Your task to perform on an android device: Open Wikipedia Image 0: 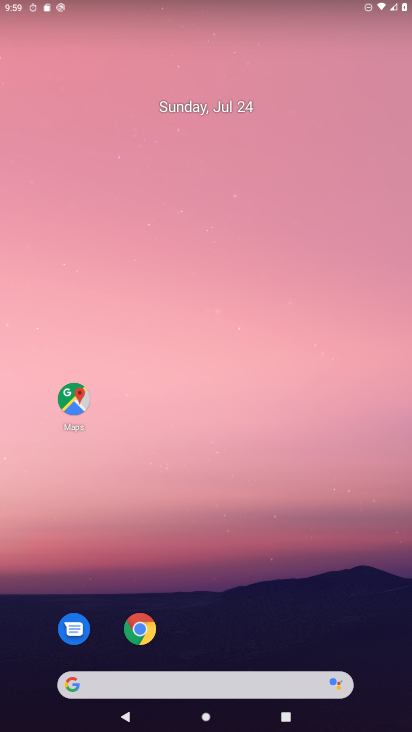
Step 0: drag from (237, 676) to (207, 113)
Your task to perform on an android device: Open Wikipedia Image 1: 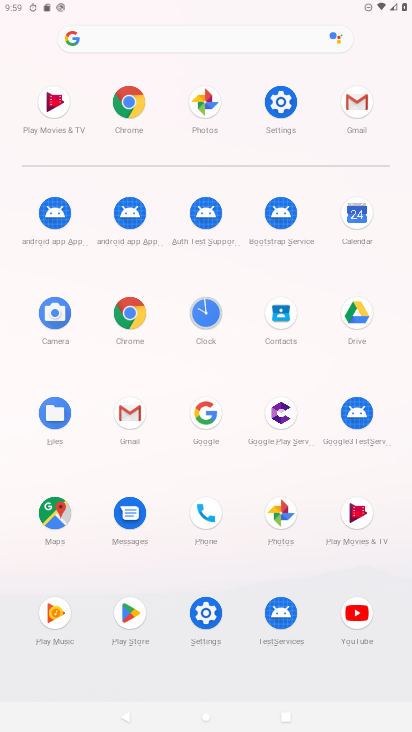
Step 1: click (124, 140)
Your task to perform on an android device: Open Wikipedia Image 2: 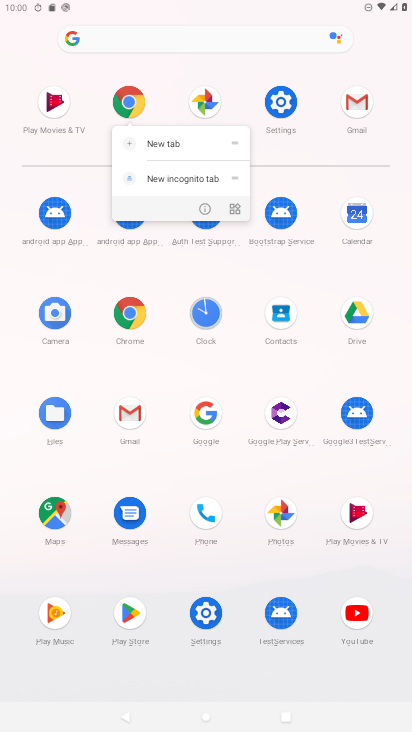
Step 2: click (139, 336)
Your task to perform on an android device: Open Wikipedia Image 3: 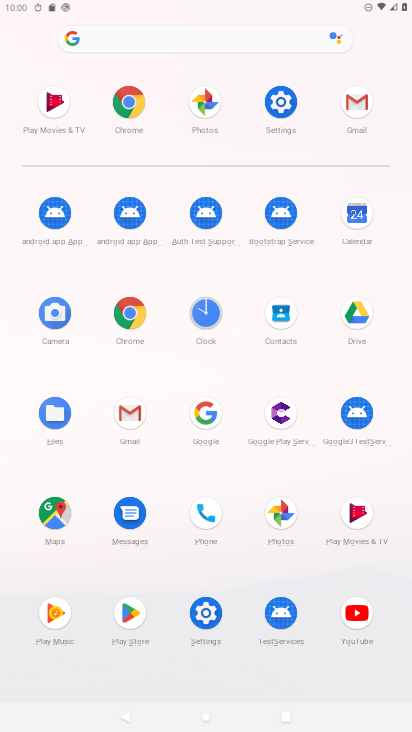
Step 3: click (138, 336)
Your task to perform on an android device: Open Wikipedia Image 4: 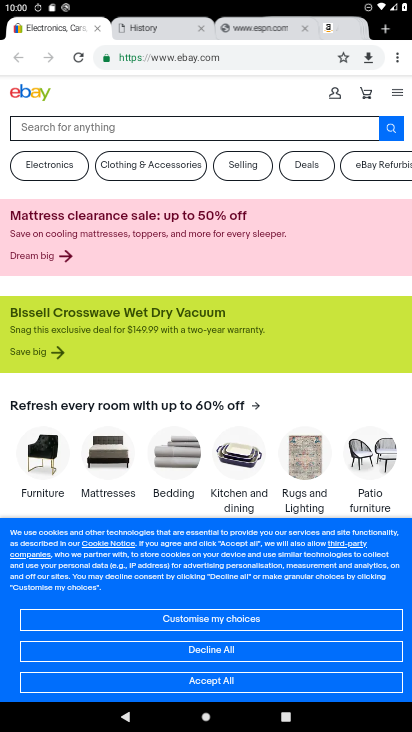
Step 4: click (305, 62)
Your task to perform on an android device: Open Wikipedia Image 5: 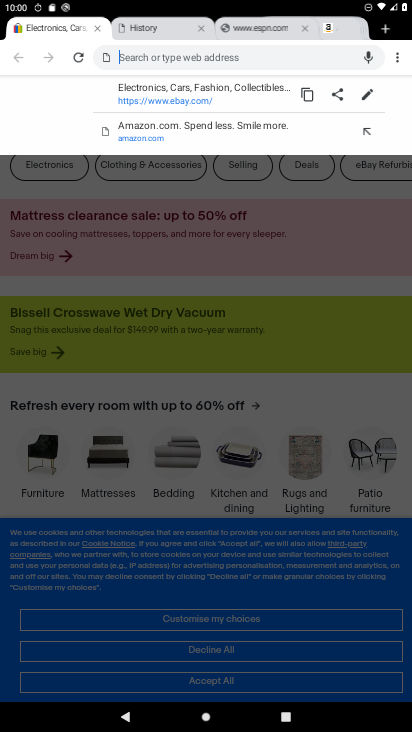
Step 5: type "wikipedia"
Your task to perform on an android device: Open Wikipedia Image 6: 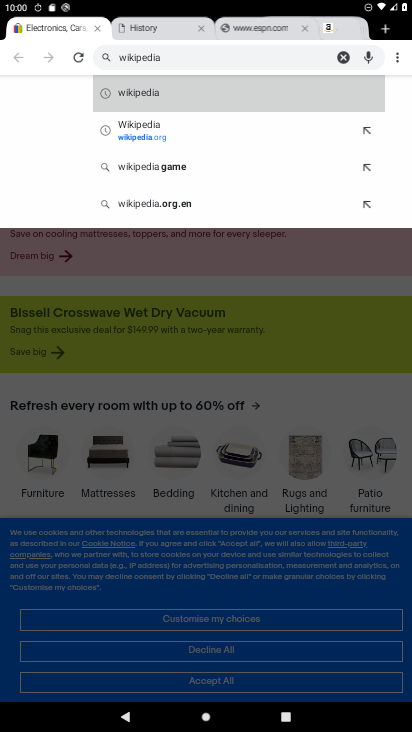
Step 6: click (146, 124)
Your task to perform on an android device: Open Wikipedia Image 7: 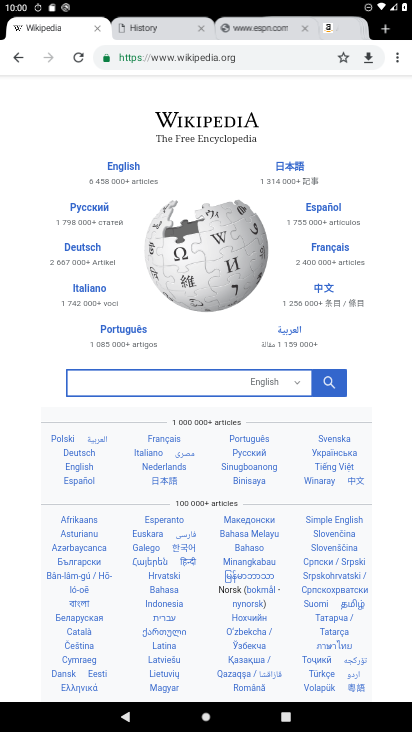
Step 7: task complete